Your task to perform on an android device: toggle pop-ups in chrome Image 0: 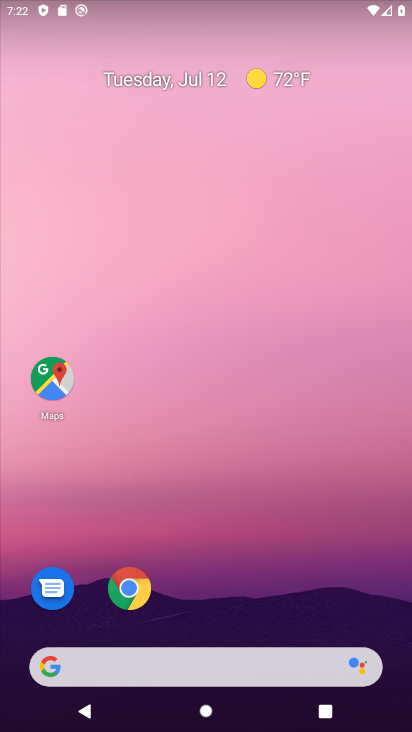
Step 0: drag from (299, 561) to (397, 19)
Your task to perform on an android device: toggle pop-ups in chrome Image 1: 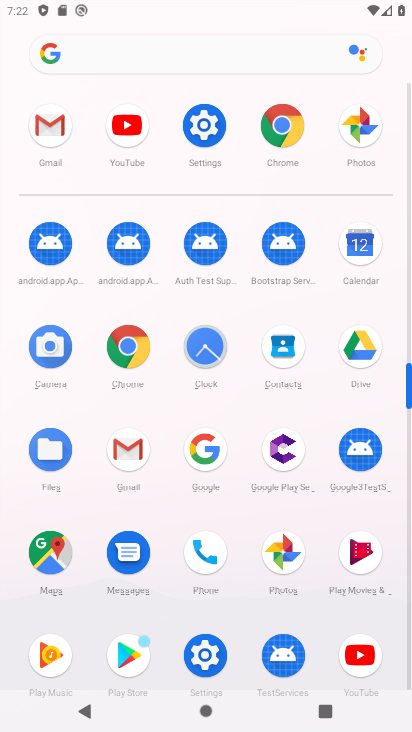
Step 1: click (286, 131)
Your task to perform on an android device: toggle pop-ups in chrome Image 2: 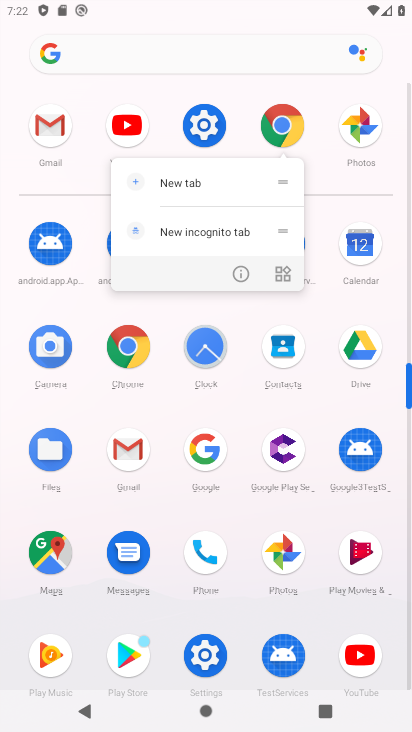
Step 2: click (272, 128)
Your task to perform on an android device: toggle pop-ups in chrome Image 3: 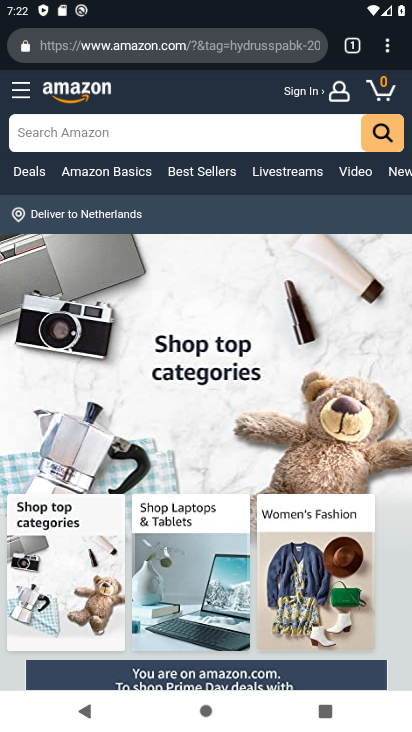
Step 3: drag from (387, 46) to (242, 538)
Your task to perform on an android device: toggle pop-ups in chrome Image 4: 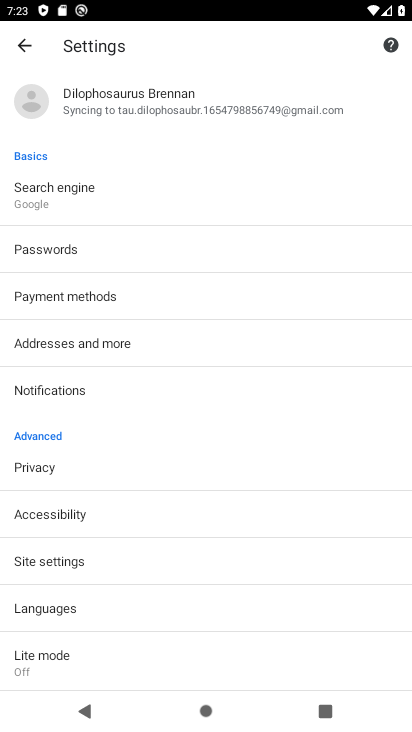
Step 4: click (52, 551)
Your task to perform on an android device: toggle pop-ups in chrome Image 5: 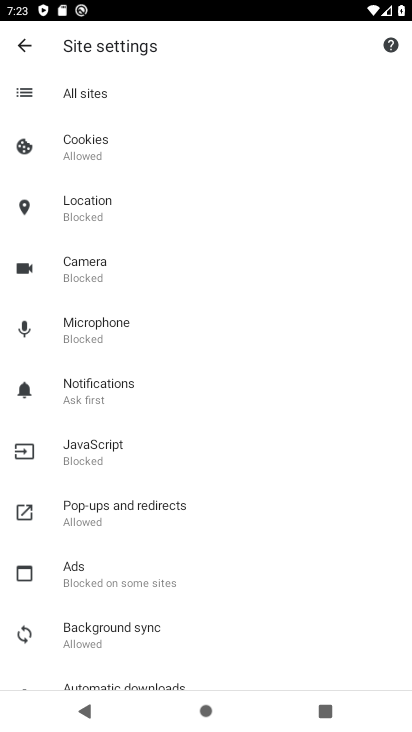
Step 5: click (82, 506)
Your task to perform on an android device: toggle pop-ups in chrome Image 6: 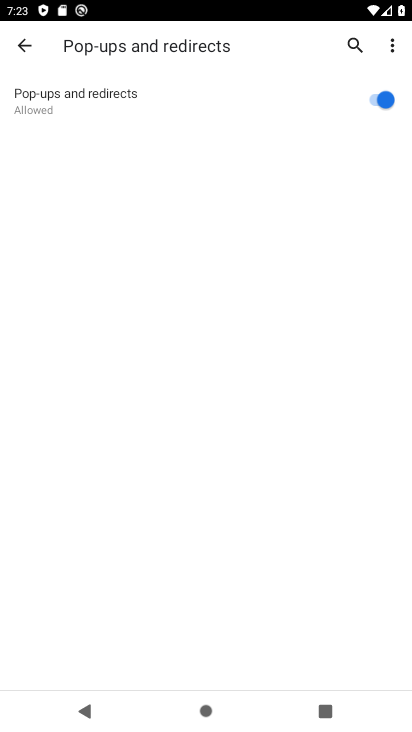
Step 6: click (386, 98)
Your task to perform on an android device: toggle pop-ups in chrome Image 7: 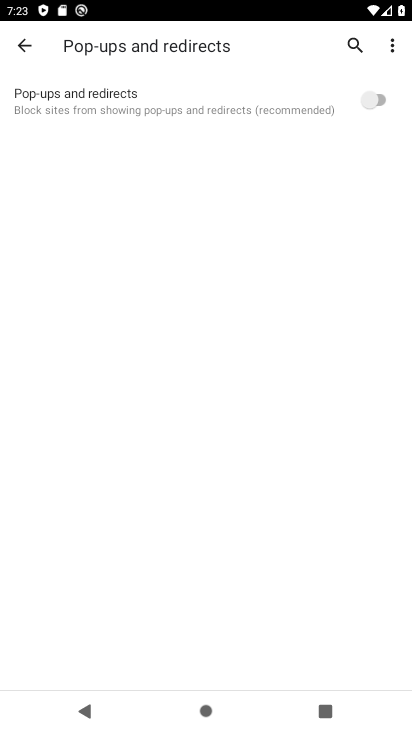
Step 7: task complete